Your task to perform on an android device: turn on notifications settings in the gmail app Image 0: 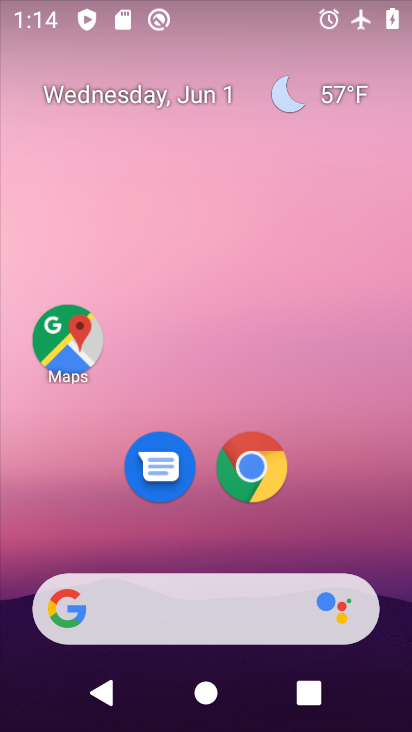
Step 0: drag from (361, 513) to (360, 149)
Your task to perform on an android device: turn on notifications settings in the gmail app Image 1: 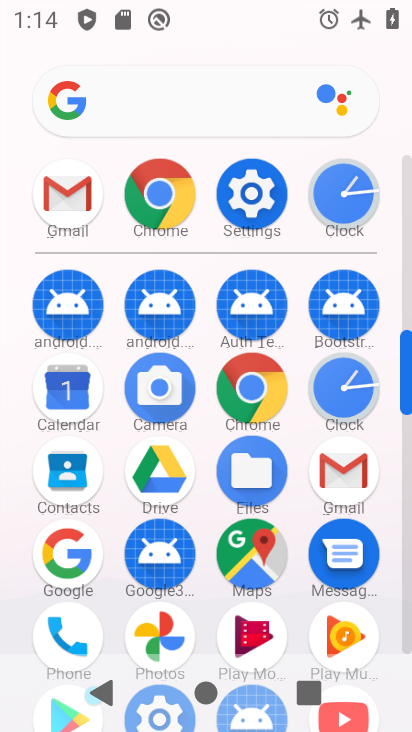
Step 1: click (342, 480)
Your task to perform on an android device: turn on notifications settings in the gmail app Image 2: 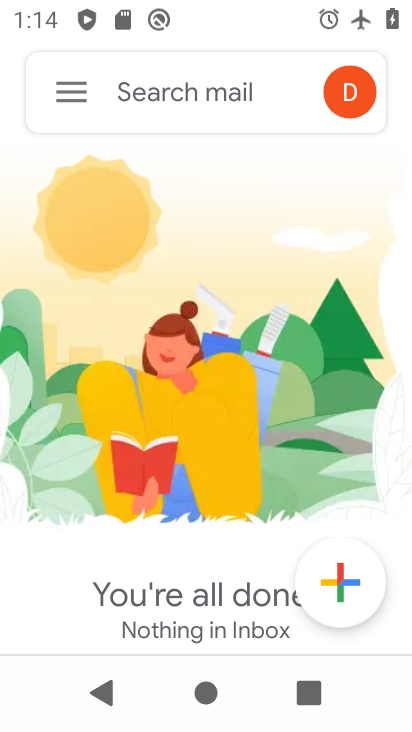
Step 2: click (69, 93)
Your task to perform on an android device: turn on notifications settings in the gmail app Image 3: 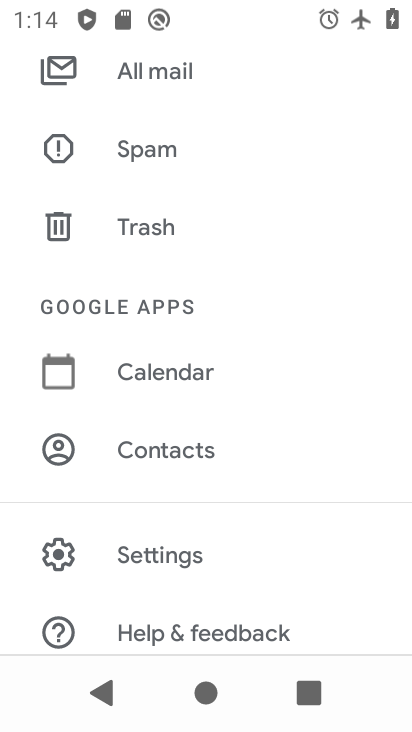
Step 3: drag from (302, 500) to (321, 280)
Your task to perform on an android device: turn on notifications settings in the gmail app Image 4: 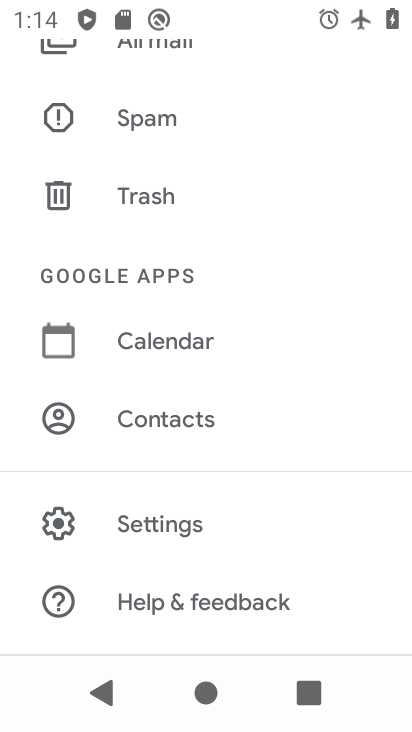
Step 4: click (183, 526)
Your task to perform on an android device: turn on notifications settings in the gmail app Image 5: 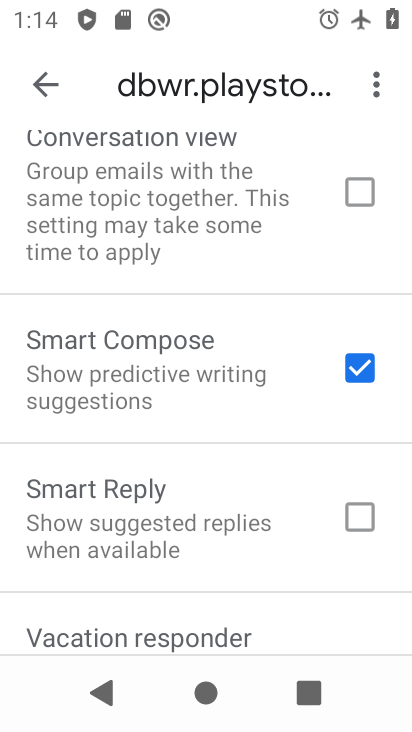
Step 5: drag from (270, 283) to (270, 431)
Your task to perform on an android device: turn on notifications settings in the gmail app Image 6: 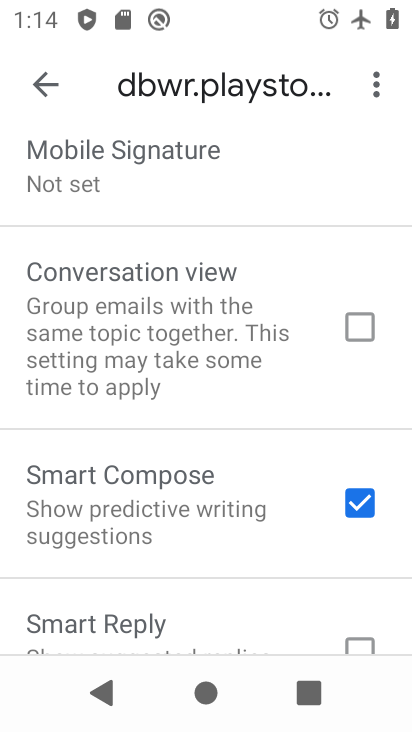
Step 6: drag from (193, 217) to (210, 406)
Your task to perform on an android device: turn on notifications settings in the gmail app Image 7: 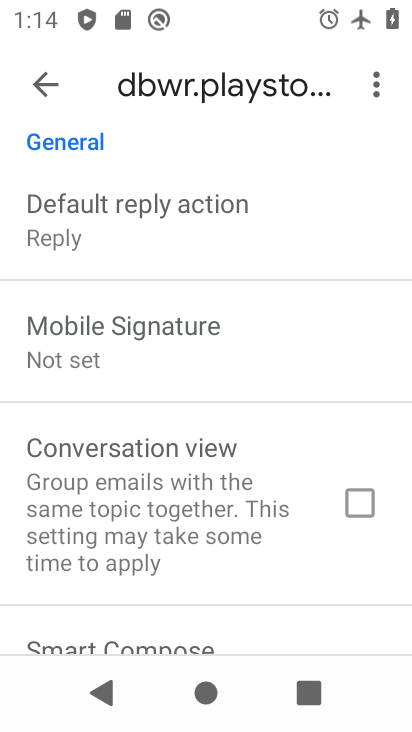
Step 7: drag from (276, 236) to (276, 377)
Your task to perform on an android device: turn on notifications settings in the gmail app Image 8: 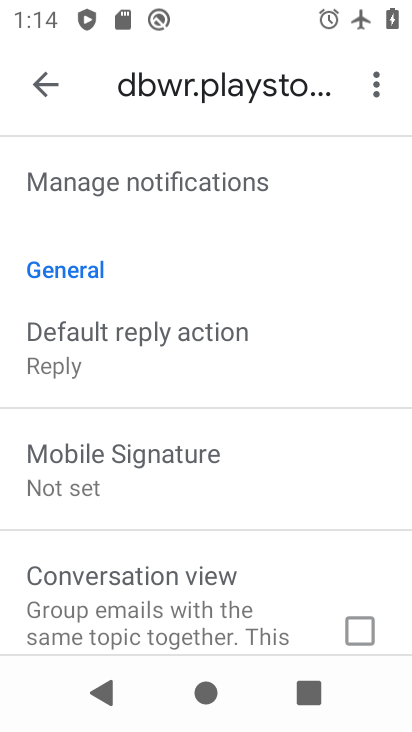
Step 8: drag from (271, 241) to (283, 380)
Your task to perform on an android device: turn on notifications settings in the gmail app Image 9: 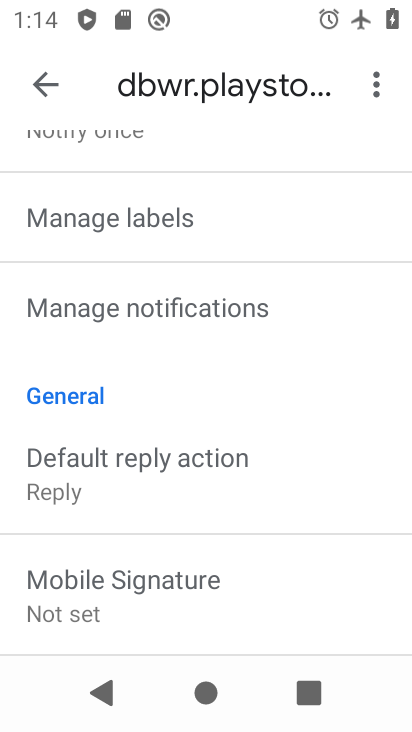
Step 9: drag from (281, 207) to (279, 361)
Your task to perform on an android device: turn on notifications settings in the gmail app Image 10: 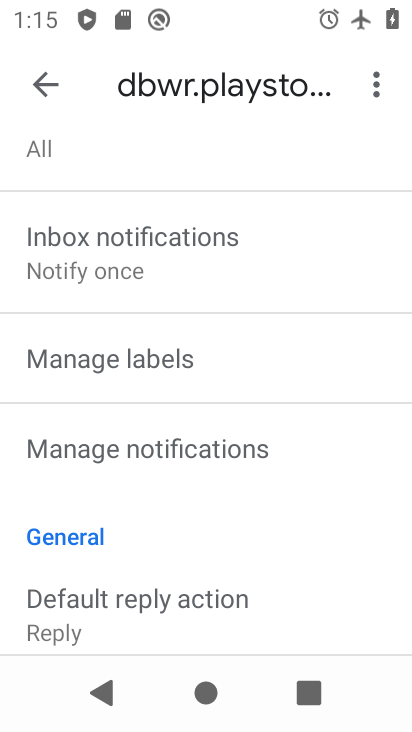
Step 10: drag from (269, 256) to (278, 426)
Your task to perform on an android device: turn on notifications settings in the gmail app Image 11: 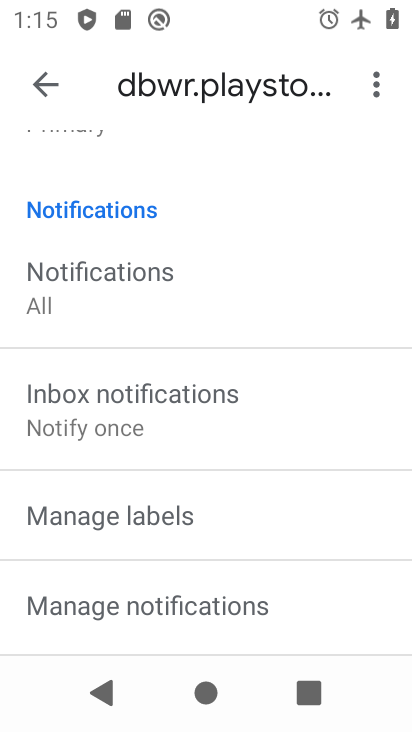
Step 11: drag from (289, 253) to (295, 385)
Your task to perform on an android device: turn on notifications settings in the gmail app Image 12: 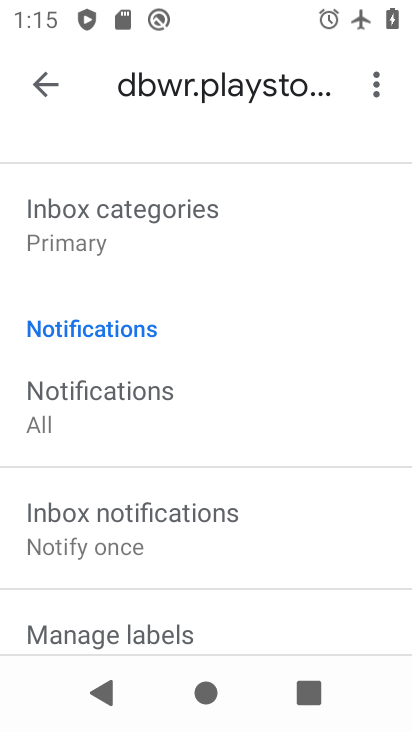
Step 12: drag from (293, 281) to (306, 399)
Your task to perform on an android device: turn on notifications settings in the gmail app Image 13: 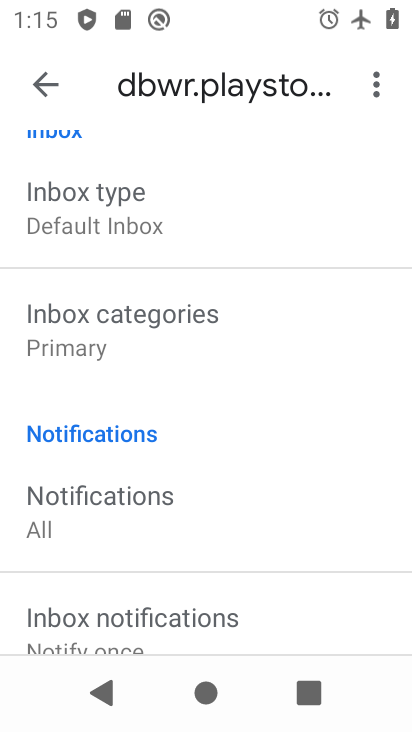
Step 13: drag from (302, 240) to (302, 399)
Your task to perform on an android device: turn on notifications settings in the gmail app Image 14: 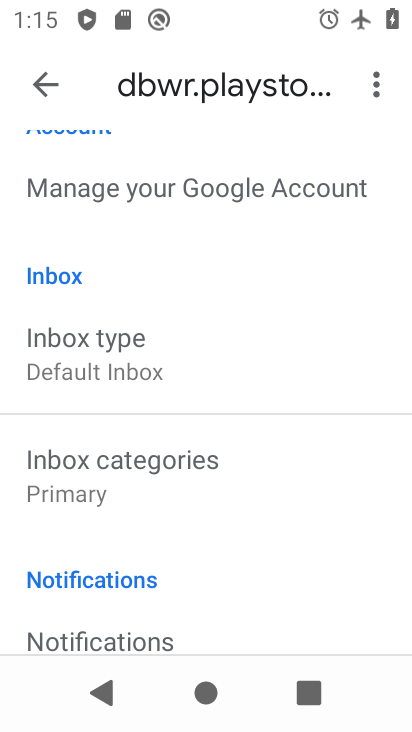
Step 14: drag from (160, 470) to (166, 280)
Your task to perform on an android device: turn on notifications settings in the gmail app Image 15: 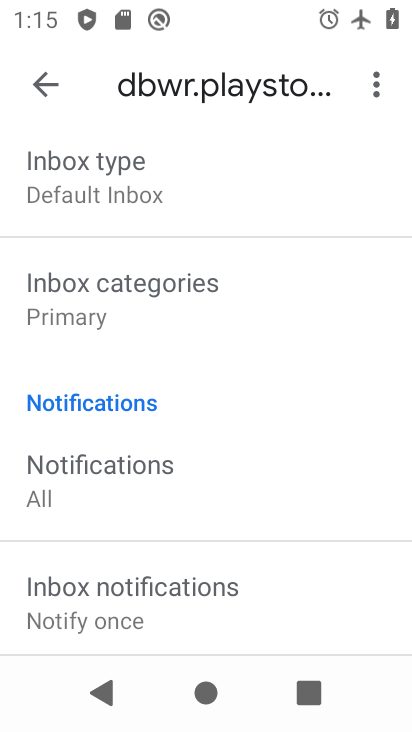
Step 15: drag from (294, 465) to (289, 280)
Your task to perform on an android device: turn on notifications settings in the gmail app Image 16: 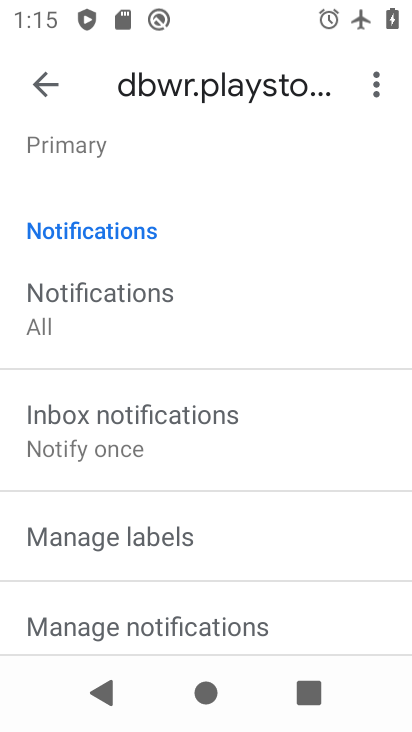
Step 16: drag from (304, 466) to (307, 320)
Your task to perform on an android device: turn on notifications settings in the gmail app Image 17: 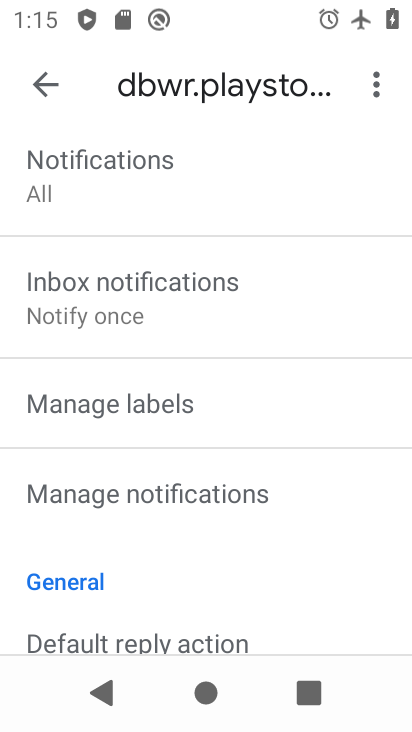
Step 17: drag from (264, 454) to (262, 289)
Your task to perform on an android device: turn on notifications settings in the gmail app Image 18: 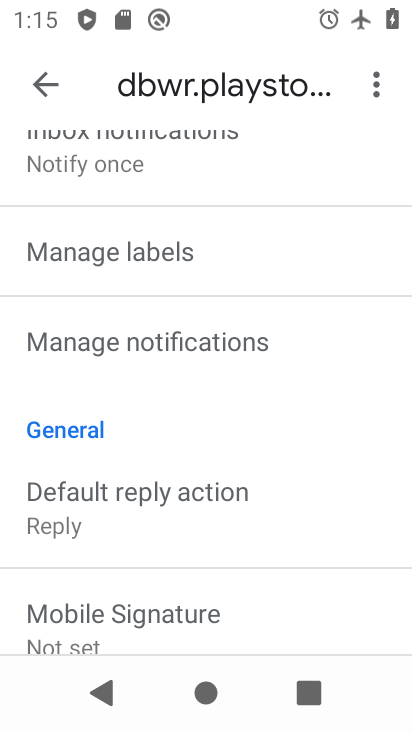
Step 18: drag from (310, 472) to (308, 326)
Your task to perform on an android device: turn on notifications settings in the gmail app Image 19: 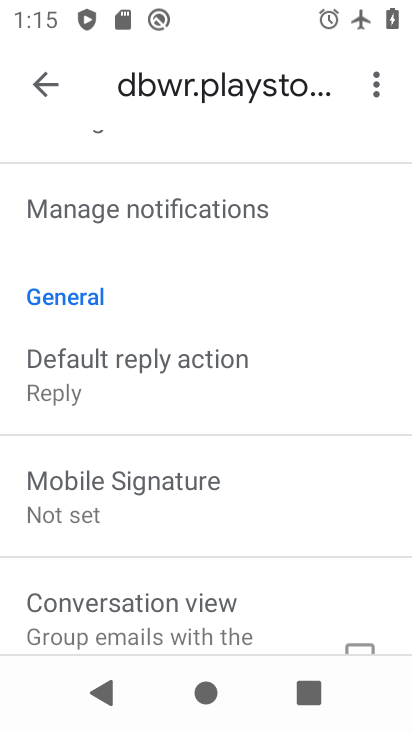
Step 19: click (242, 237)
Your task to perform on an android device: turn on notifications settings in the gmail app Image 20: 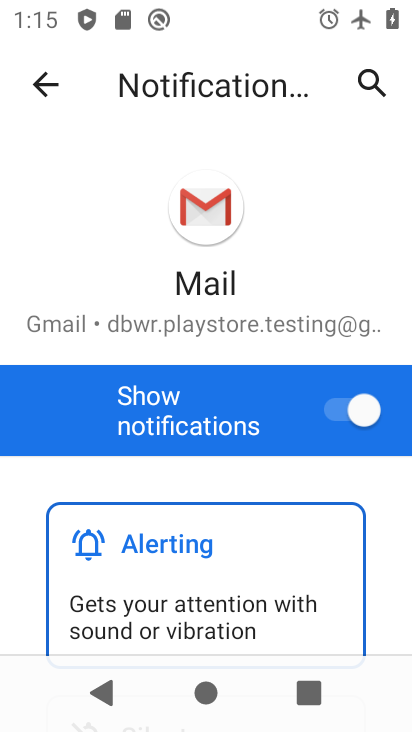
Step 20: task complete